Your task to perform on an android device: Open settings on Google Maps Image 0: 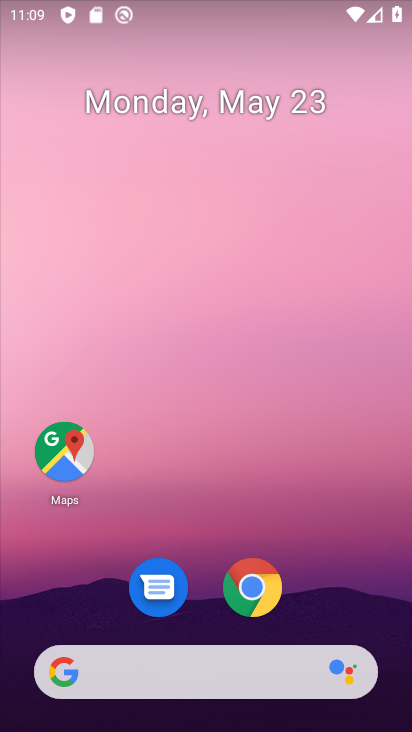
Step 0: click (55, 454)
Your task to perform on an android device: Open settings on Google Maps Image 1: 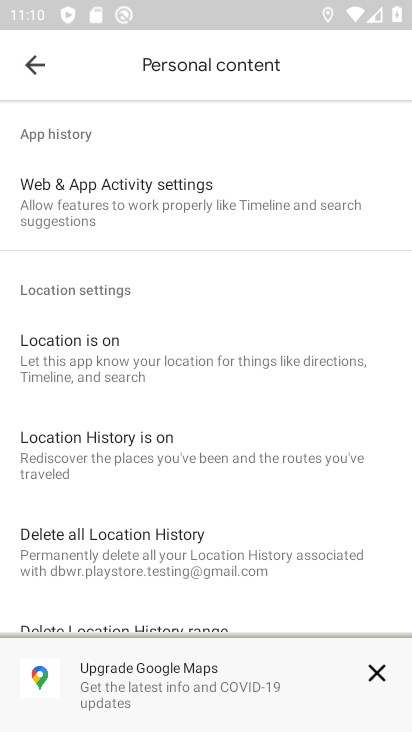
Step 1: click (39, 73)
Your task to perform on an android device: Open settings on Google Maps Image 2: 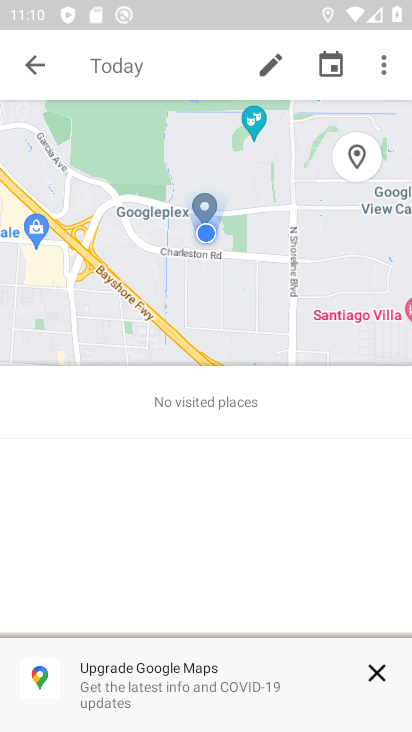
Step 2: click (30, 70)
Your task to perform on an android device: Open settings on Google Maps Image 3: 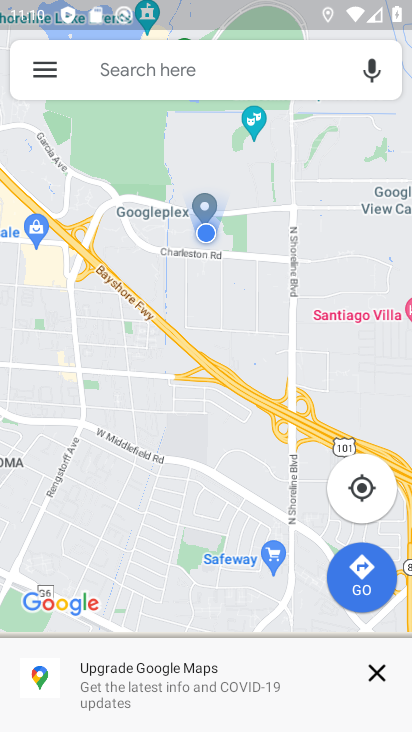
Step 3: click (30, 70)
Your task to perform on an android device: Open settings on Google Maps Image 4: 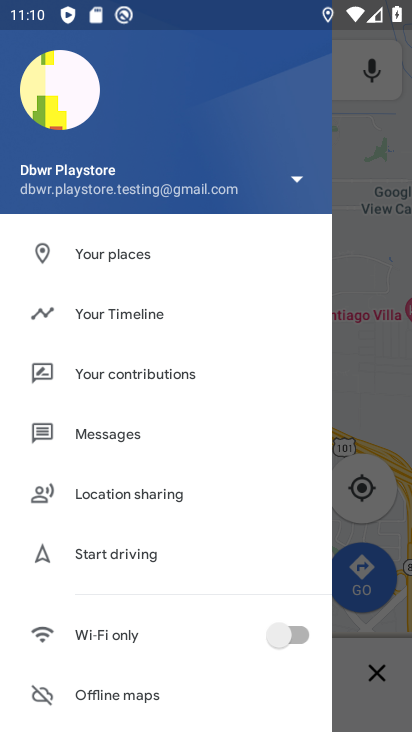
Step 4: drag from (208, 670) to (164, 114)
Your task to perform on an android device: Open settings on Google Maps Image 5: 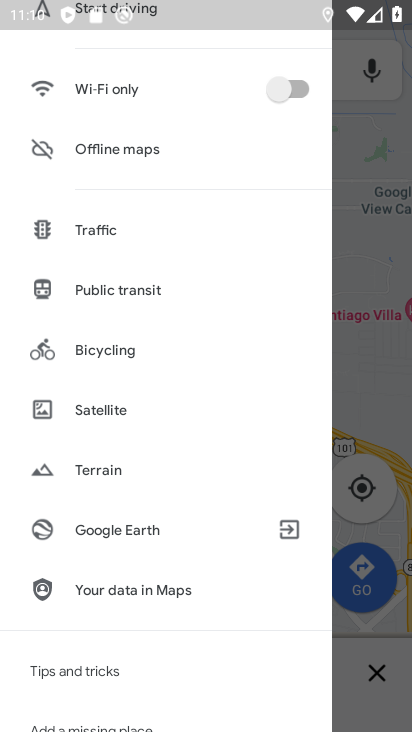
Step 5: drag from (157, 654) to (156, 255)
Your task to perform on an android device: Open settings on Google Maps Image 6: 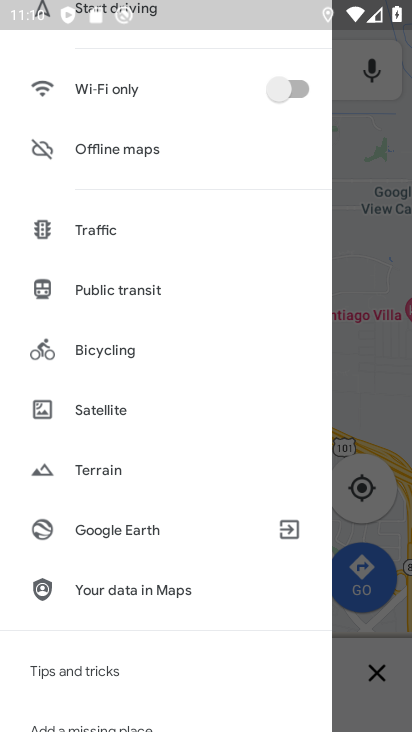
Step 6: drag from (133, 679) to (95, 388)
Your task to perform on an android device: Open settings on Google Maps Image 7: 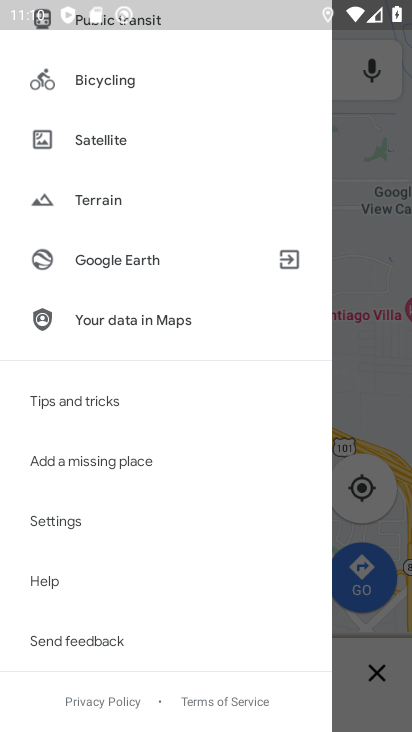
Step 7: click (83, 519)
Your task to perform on an android device: Open settings on Google Maps Image 8: 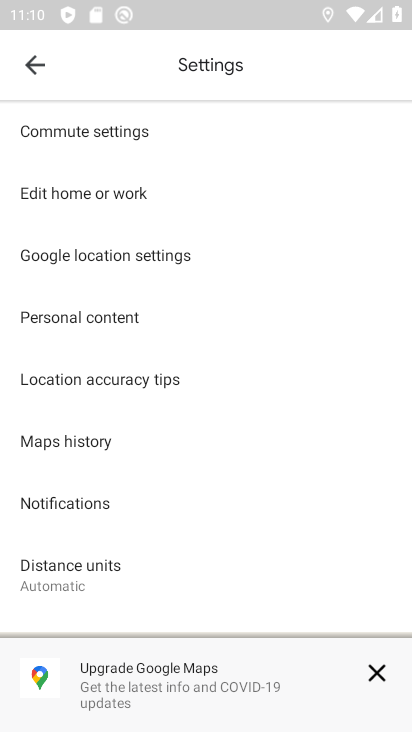
Step 8: task complete